Your task to perform on an android device: turn on data saver in the chrome app Image 0: 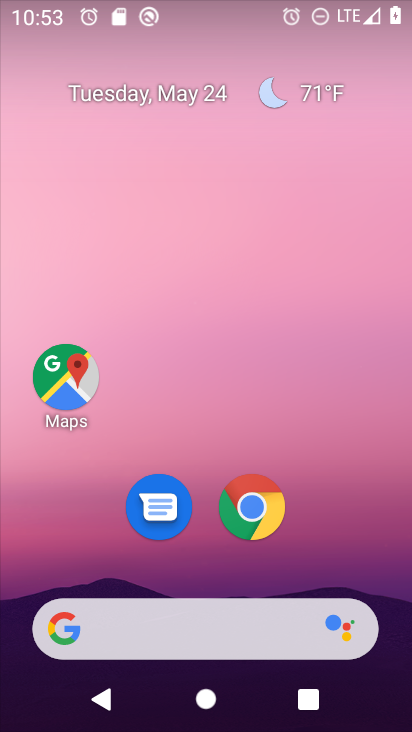
Step 0: click (256, 508)
Your task to perform on an android device: turn on data saver in the chrome app Image 1: 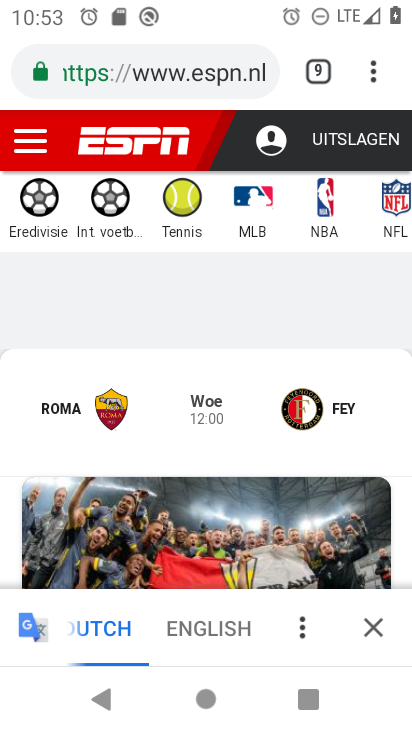
Step 1: click (373, 76)
Your task to perform on an android device: turn on data saver in the chrome app Image 2: 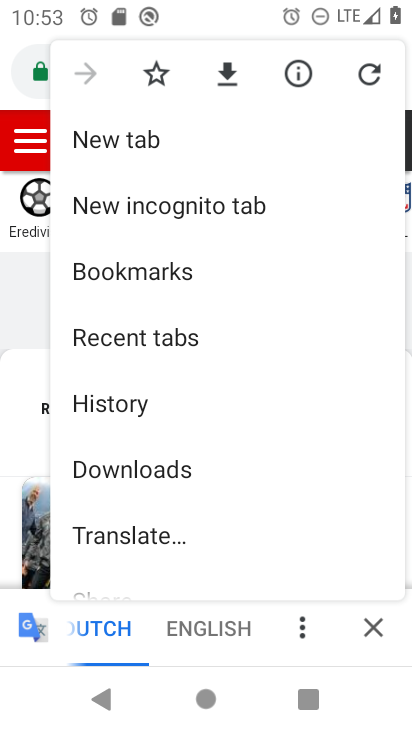
Step 2: drag from (133, 555) to (132, 226)
Your task to perform on an android device: turn on data saver in the chrome app Image 3: 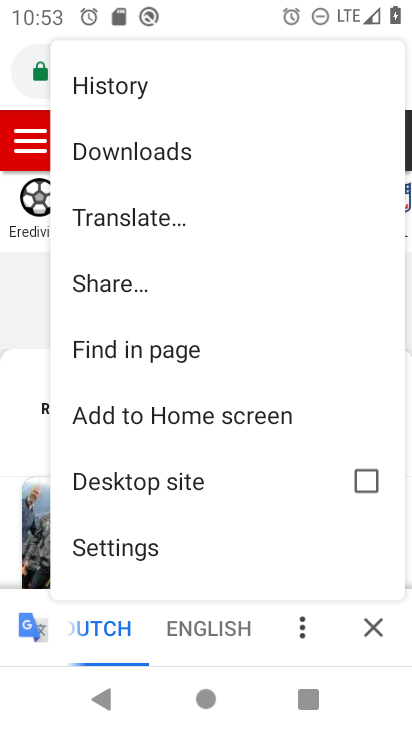
Step 3: click (124, 545)
Your task to perform on an android device: turn on data saver in the chrome app Image 4: 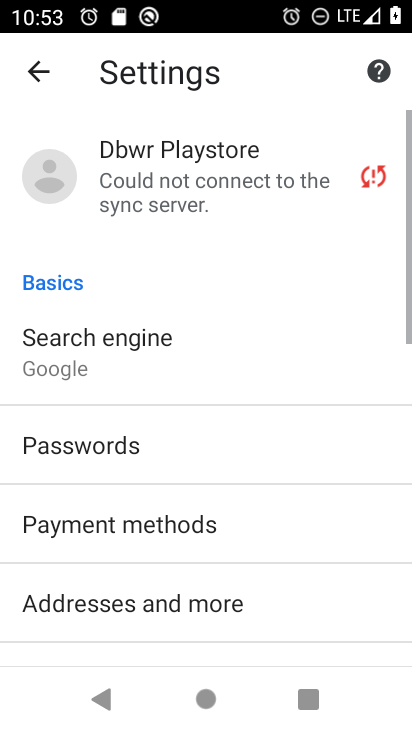
Step 4: drag from (141, 613) to (155, 289)
Your task to perform on an android device: turn on data saver in the chrome app Image 5: 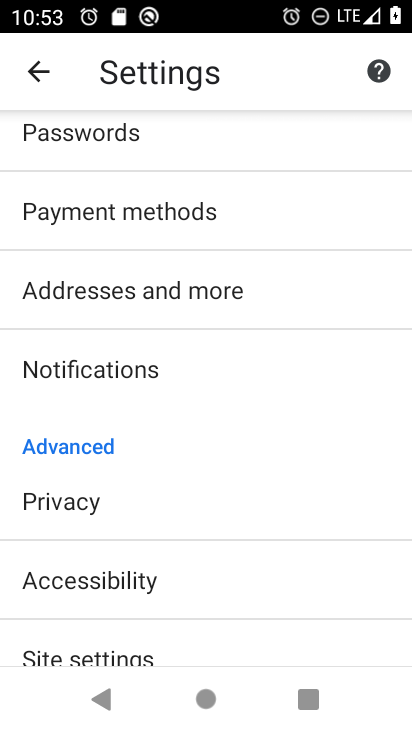
Step 5: drag from (145, 570) to (183, 307)
Your task to perform on an android device: turn on data saver in the chrome app Image 6: 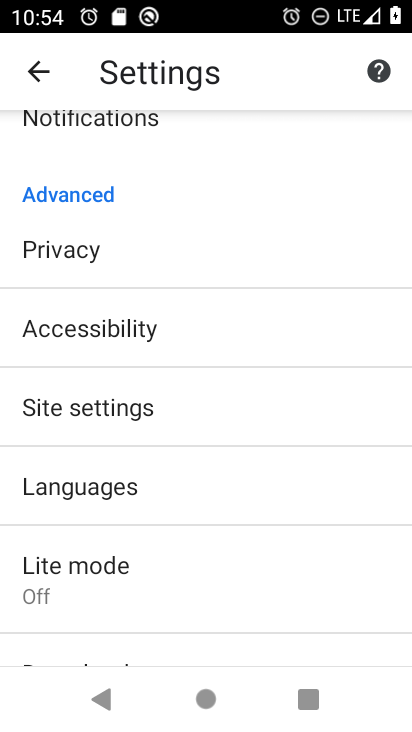
Step 6: click (93, 568)
Your task to perform on an android device: turn on data saver in the chrome app Image 7: 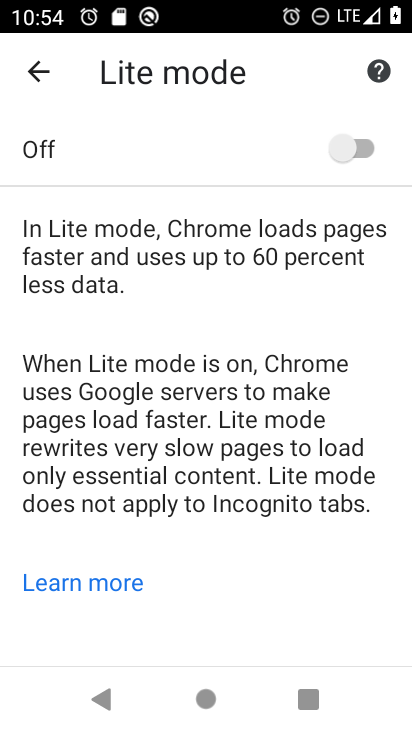
Step 7: click (367, 153)
Your task to perform on an android device: turn on data saver in the chrome app Image 8: 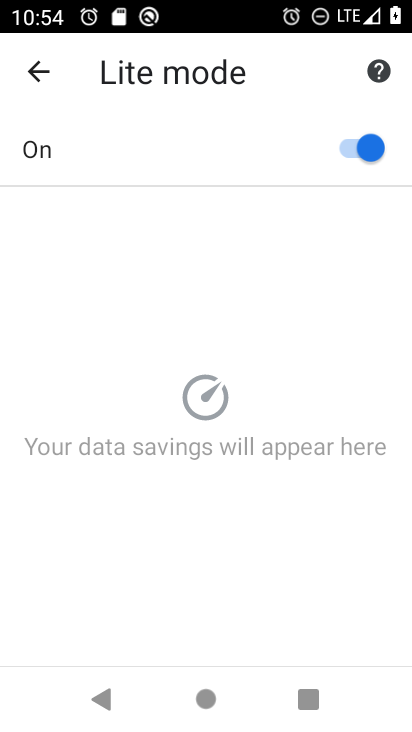
Step 8: task complete